Your task to perform on an android device: Open the calendar and show me this week's events? Image 0: 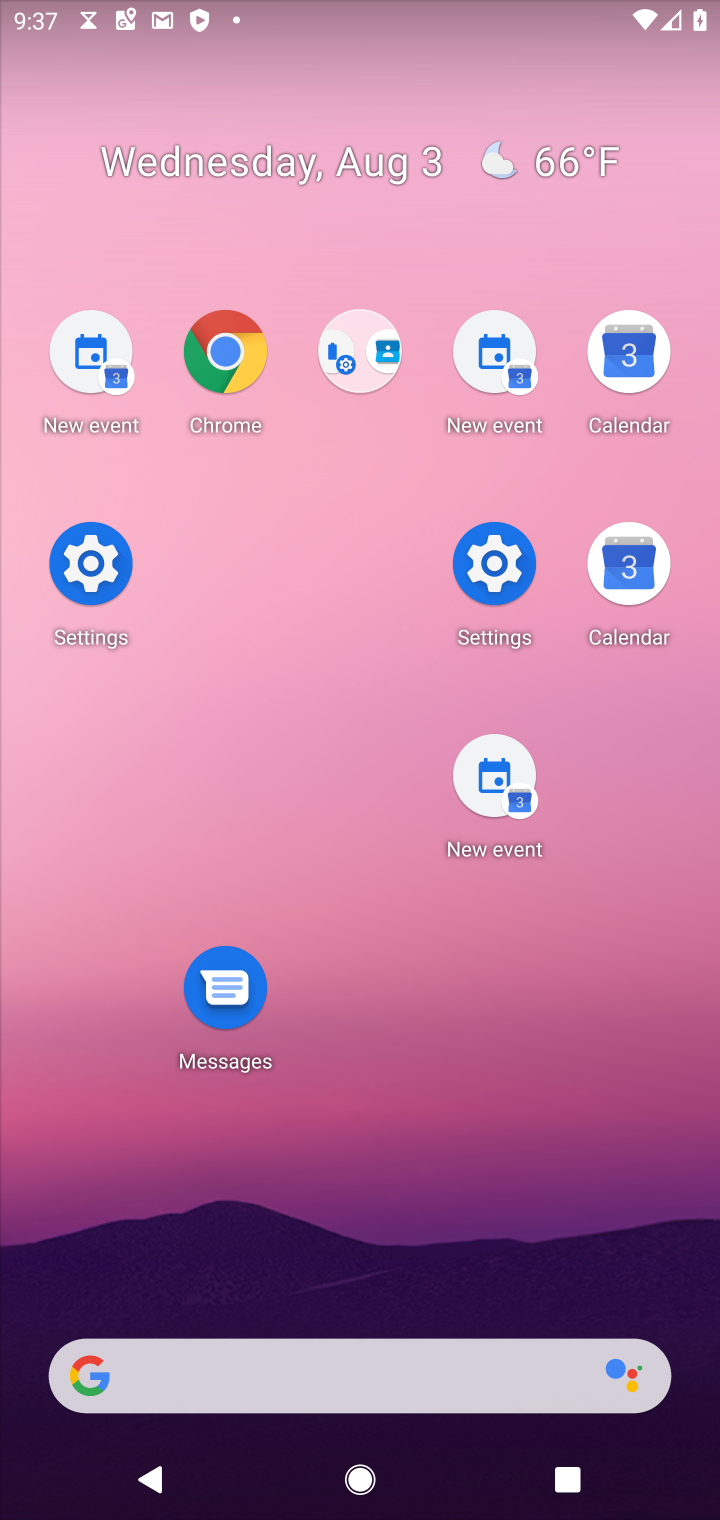
Step 0: drag from (454, 1379) to (460, 485)
Your task to perform on an android device: Open the calendar and show me this week's events? Image 1: 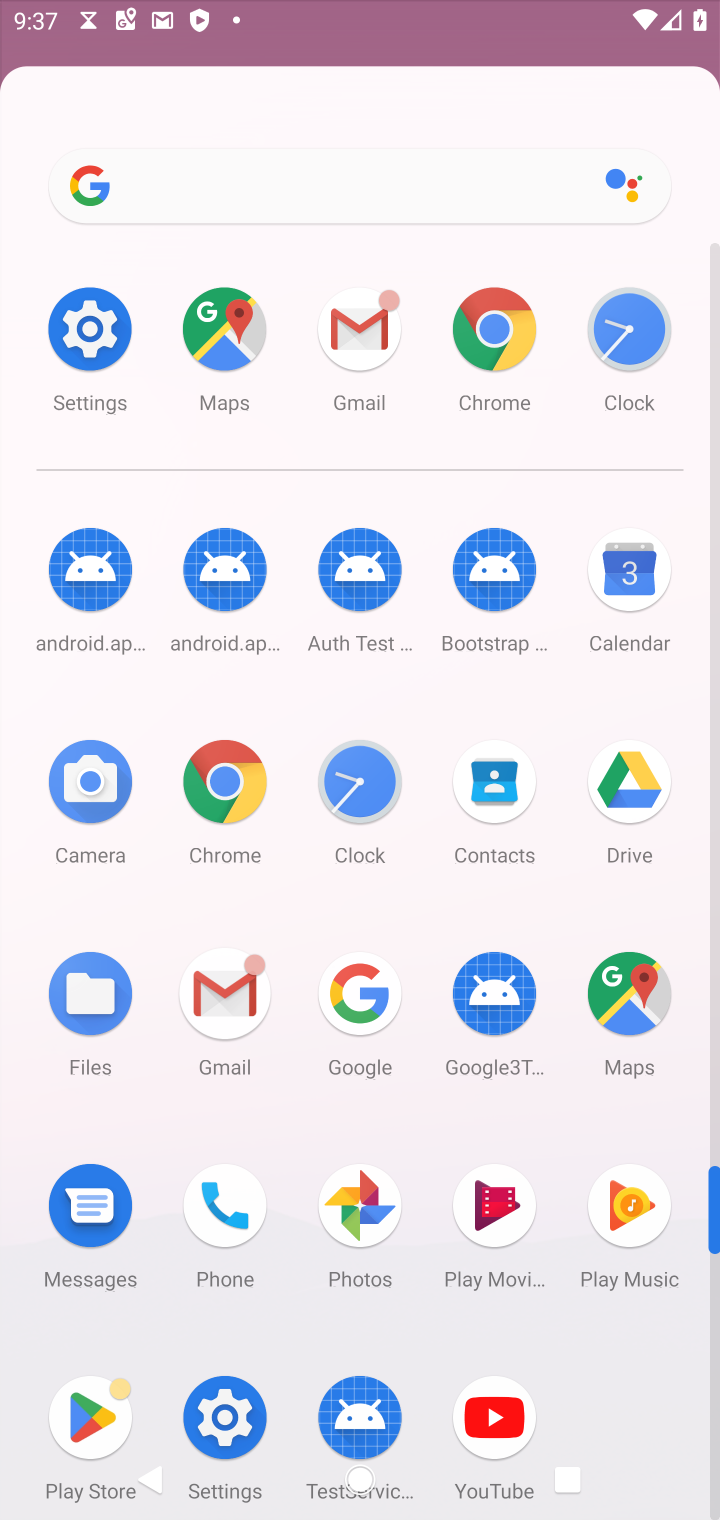
Step 1: drag from (437, 1038) to (434, 392)
Your task to perform on an android device: Open the calendar and show me this week's events? Image 2: 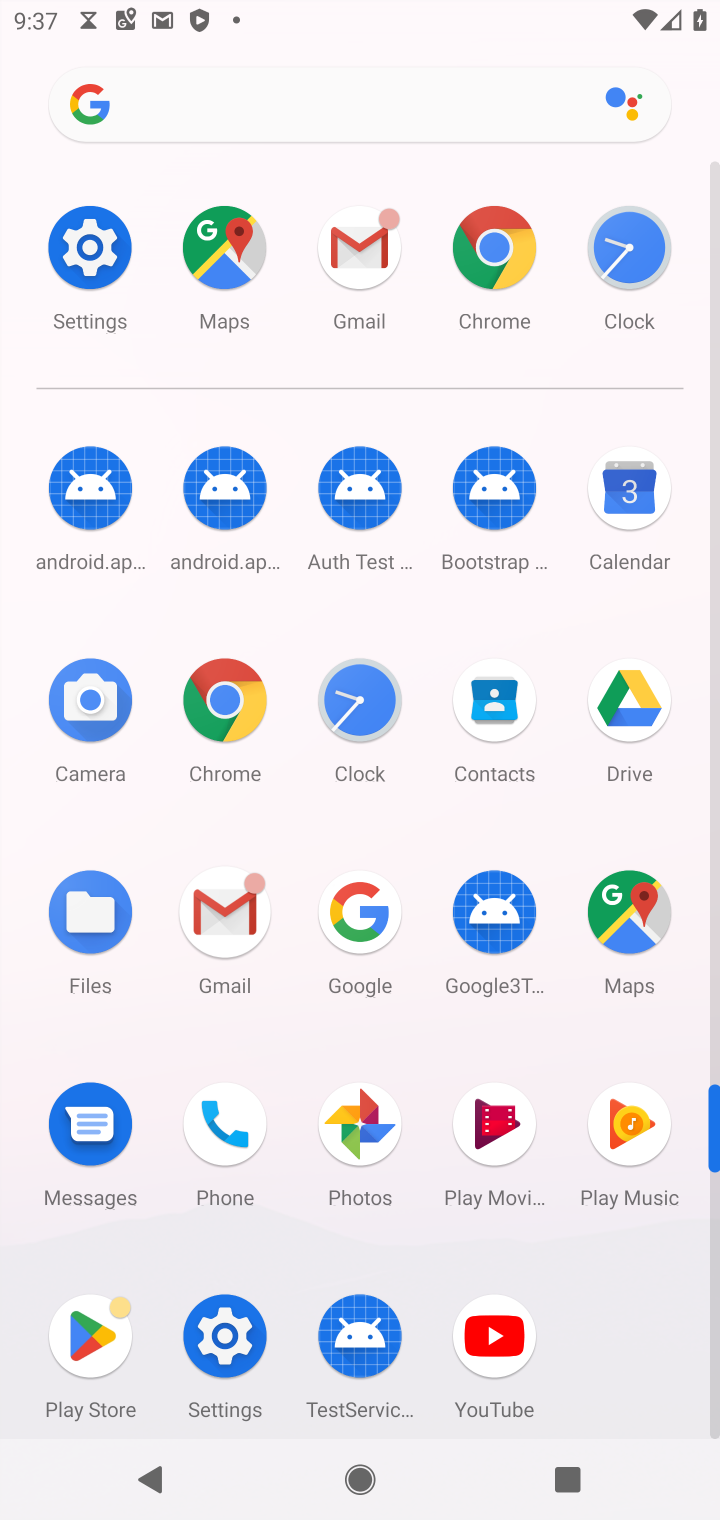
Step 2: click (632, 507)
Your task to perform on an android device: Open the calendar and show me this week's events? Image 3: 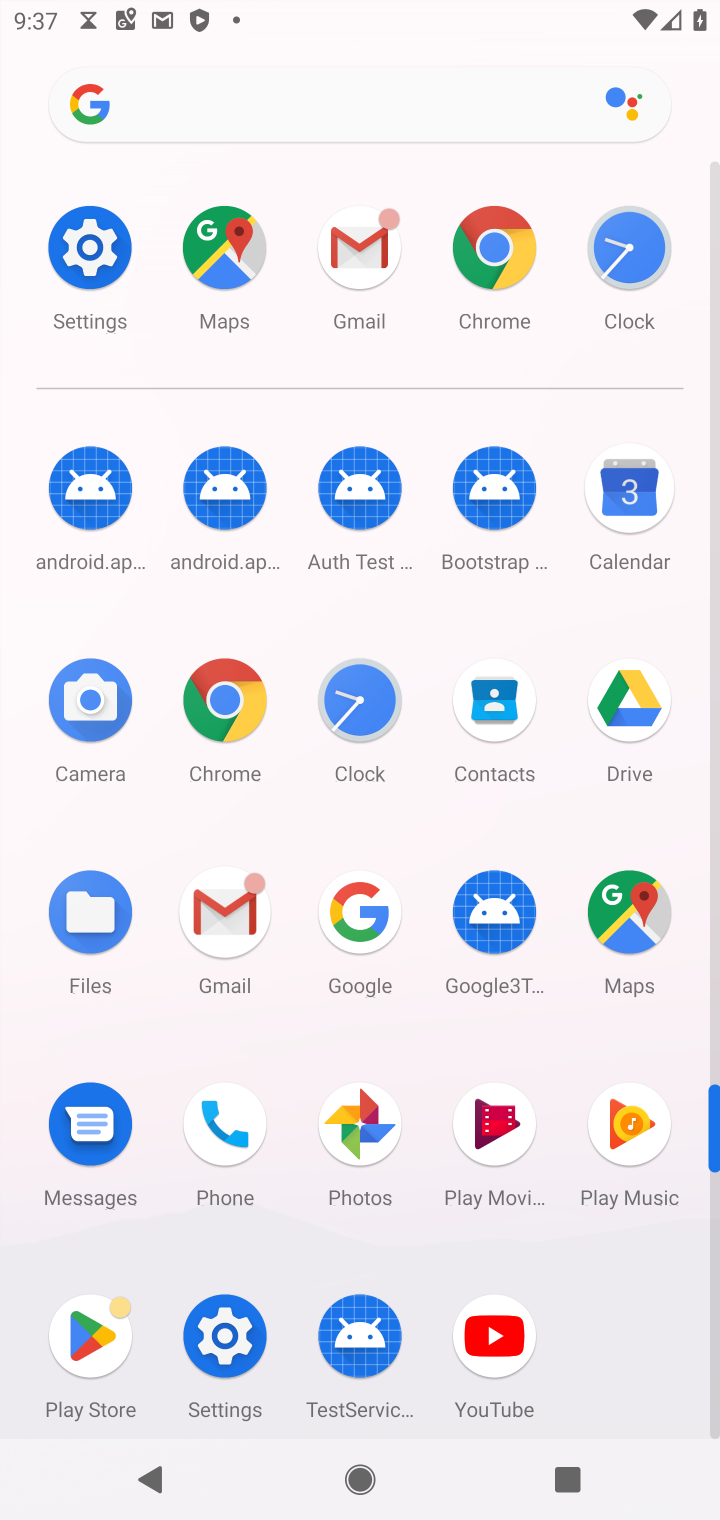
Step 3: click (644, 501)
Your task to perform on an android device: Open the calendar and show me this week's events? Image 4: 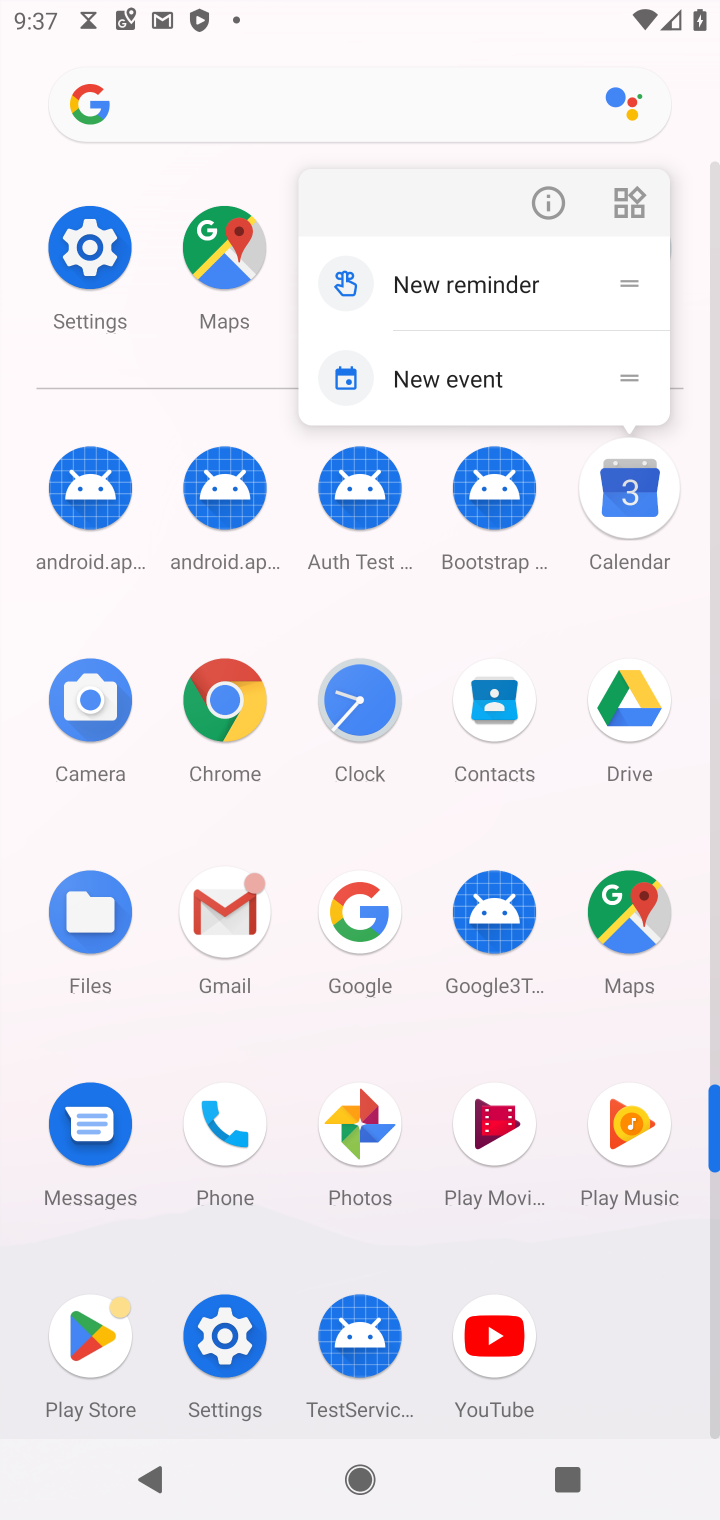
Step 4: click (643, 505)
Your task to perform on an android device: Open the calendar and show me this week's events? Image 5: 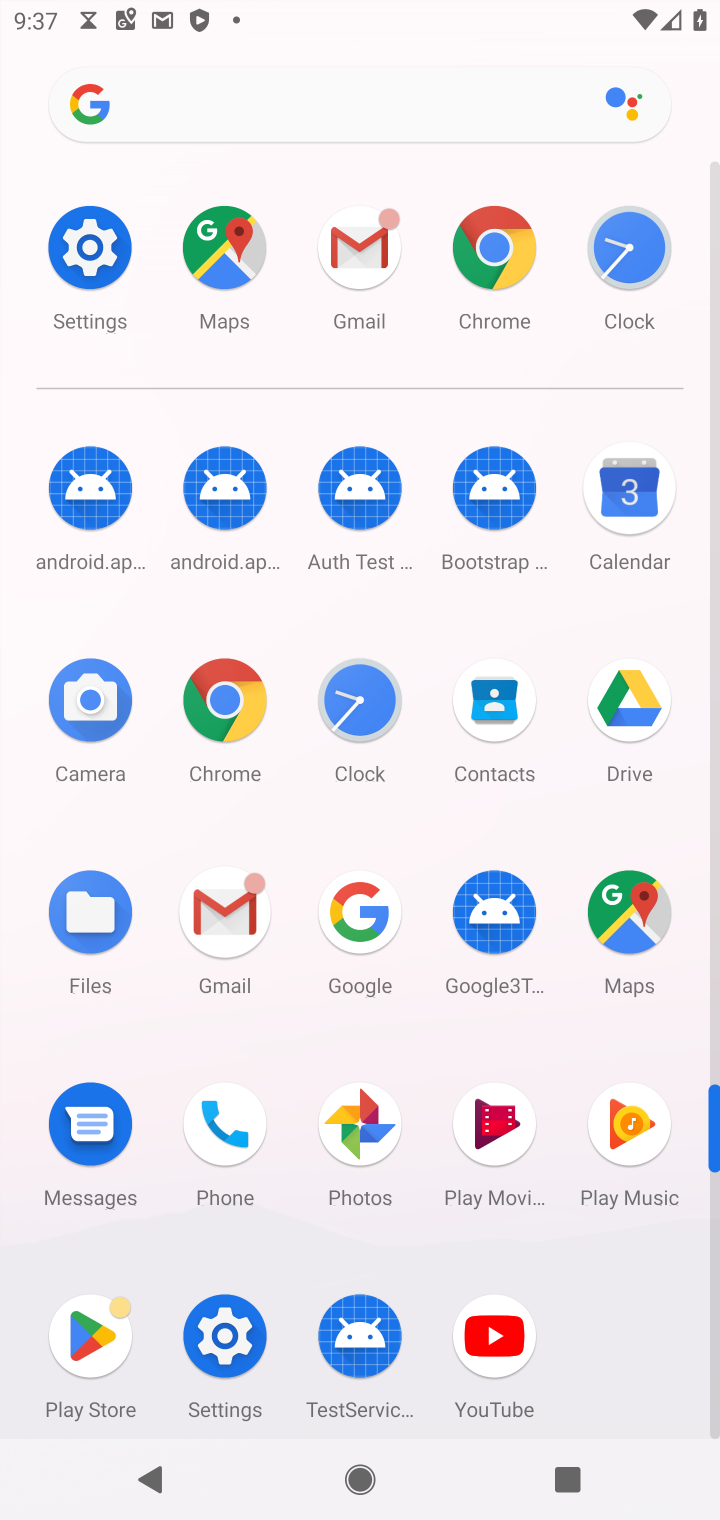
Step 5: click (627, 503)
Your task to perform on an android device: Open the calendar and show me this week's events? Image 6: 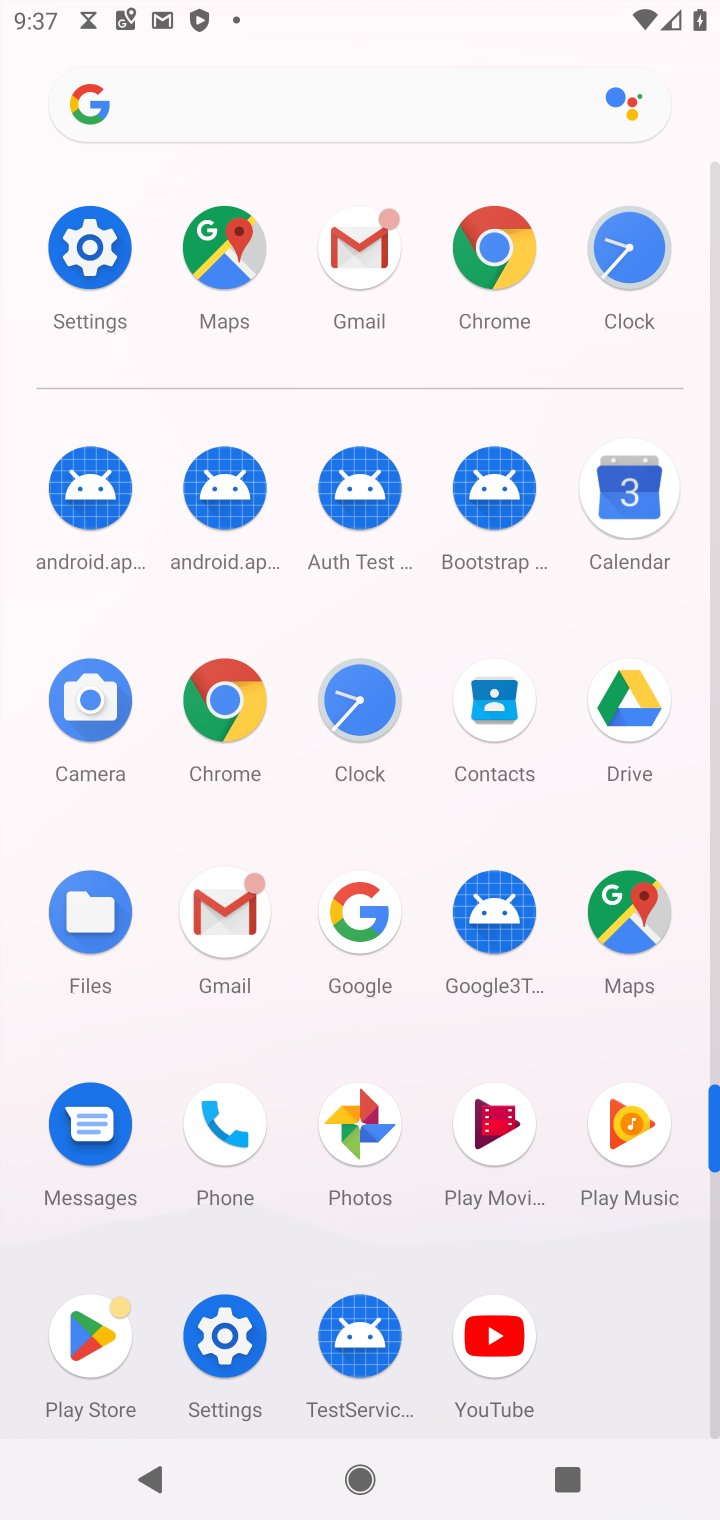
Step 6: click (472, 382)
Your task to perform on an android device: Open the calendar and show me this week's events? Image 7: 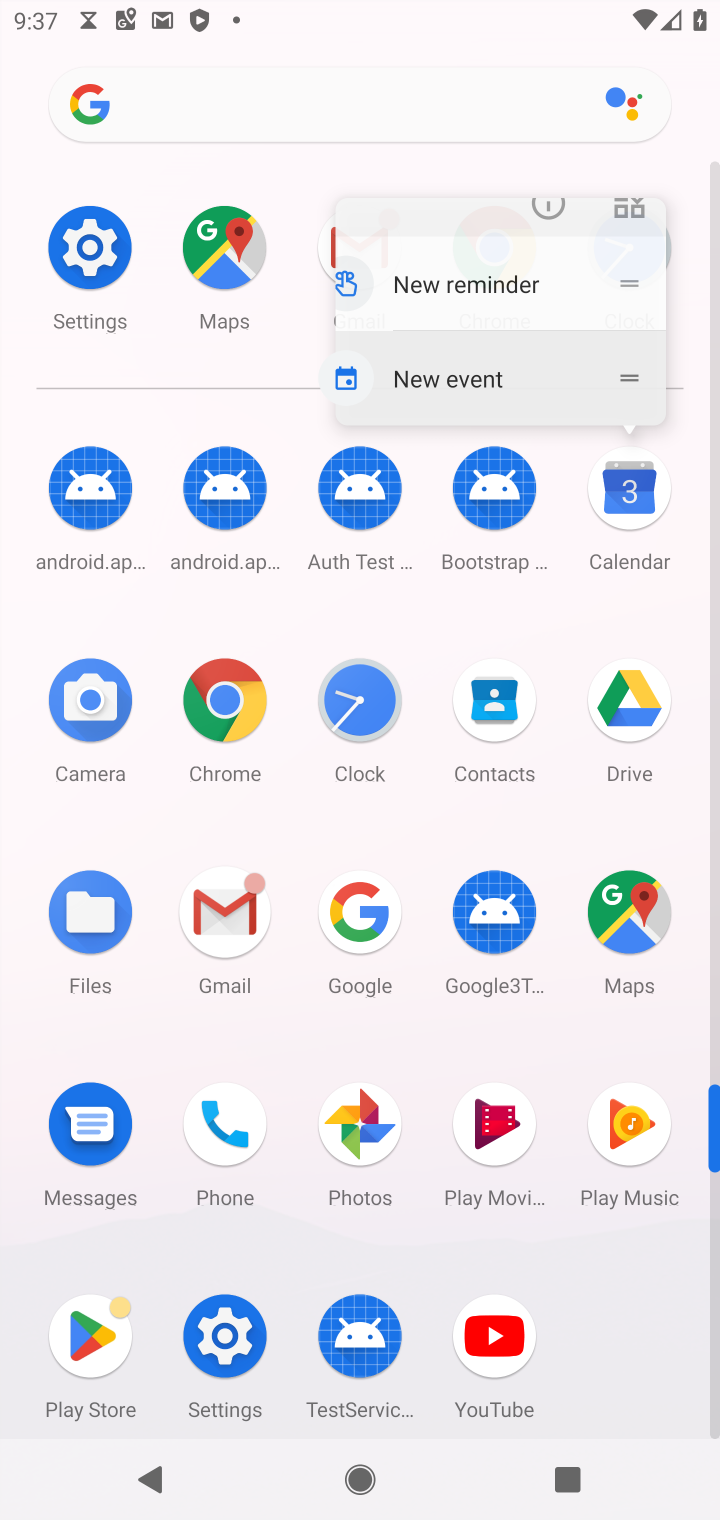
Step 7: click (472, 382)
Your task to perform on an android device: Open the calendar and show me this week's events? Image 8: 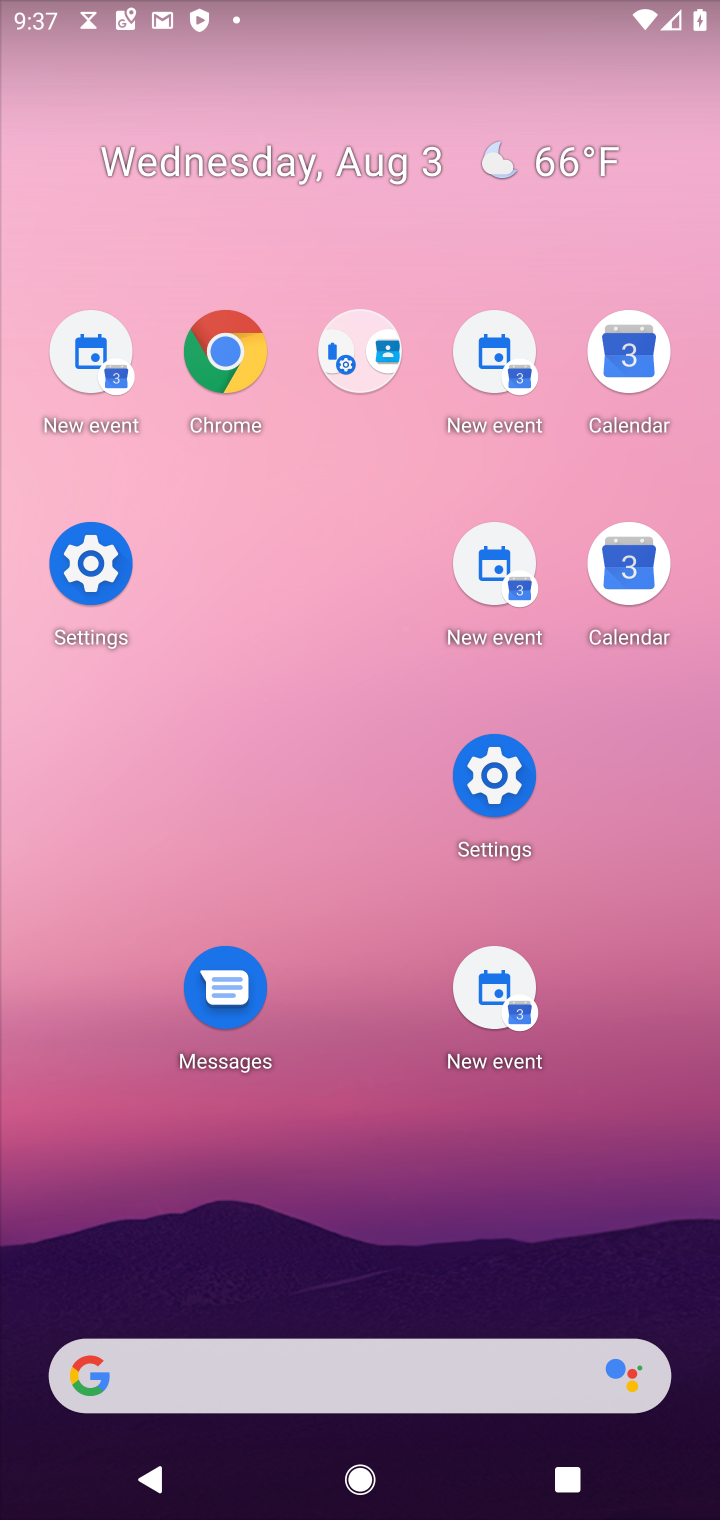
Step 8: drag from (440, 1191) to (113, 335)
Your task to perform on an android device: Open the calendar and show me this week's events? Image 9: 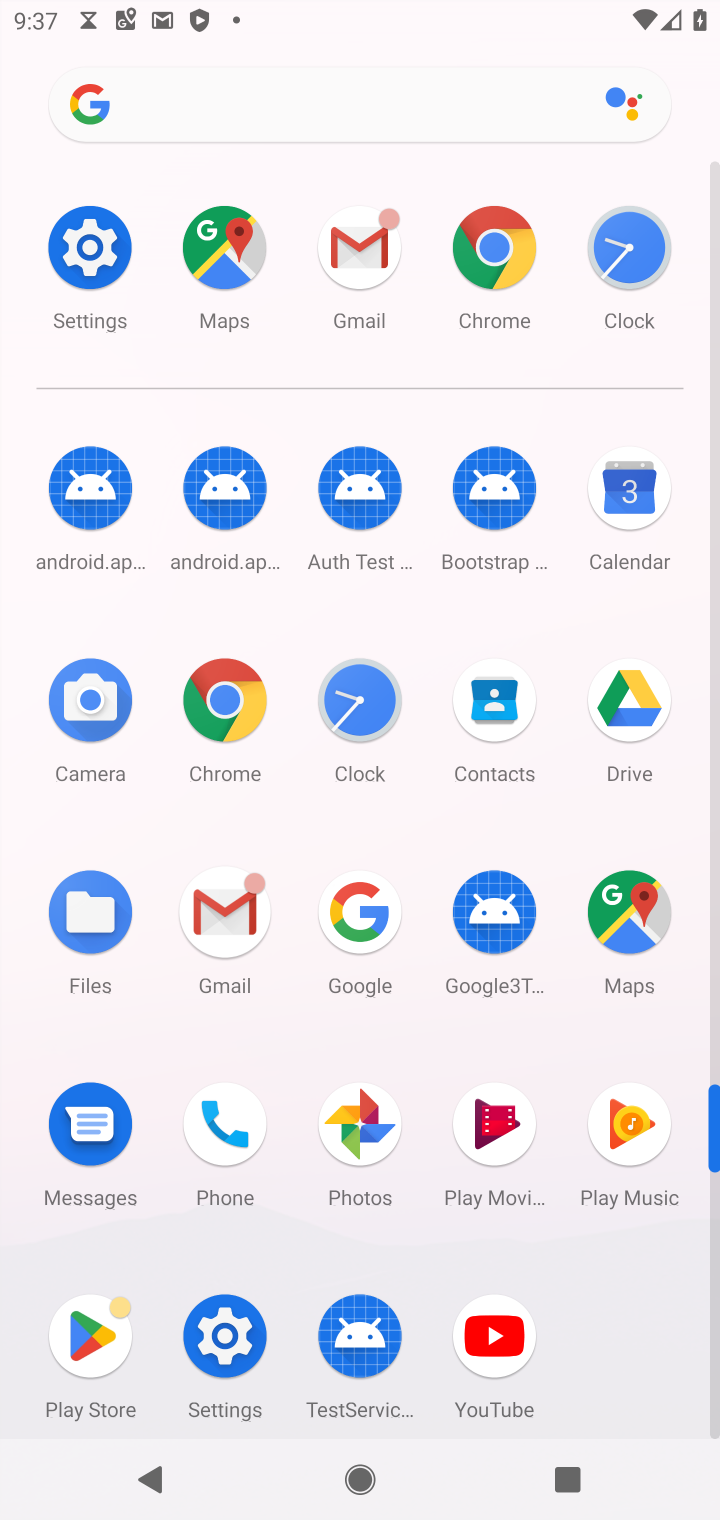
Step 9: click (638, 495)
Your task to perform on an android device: Open the calendar and show me this week's events? Image 10: 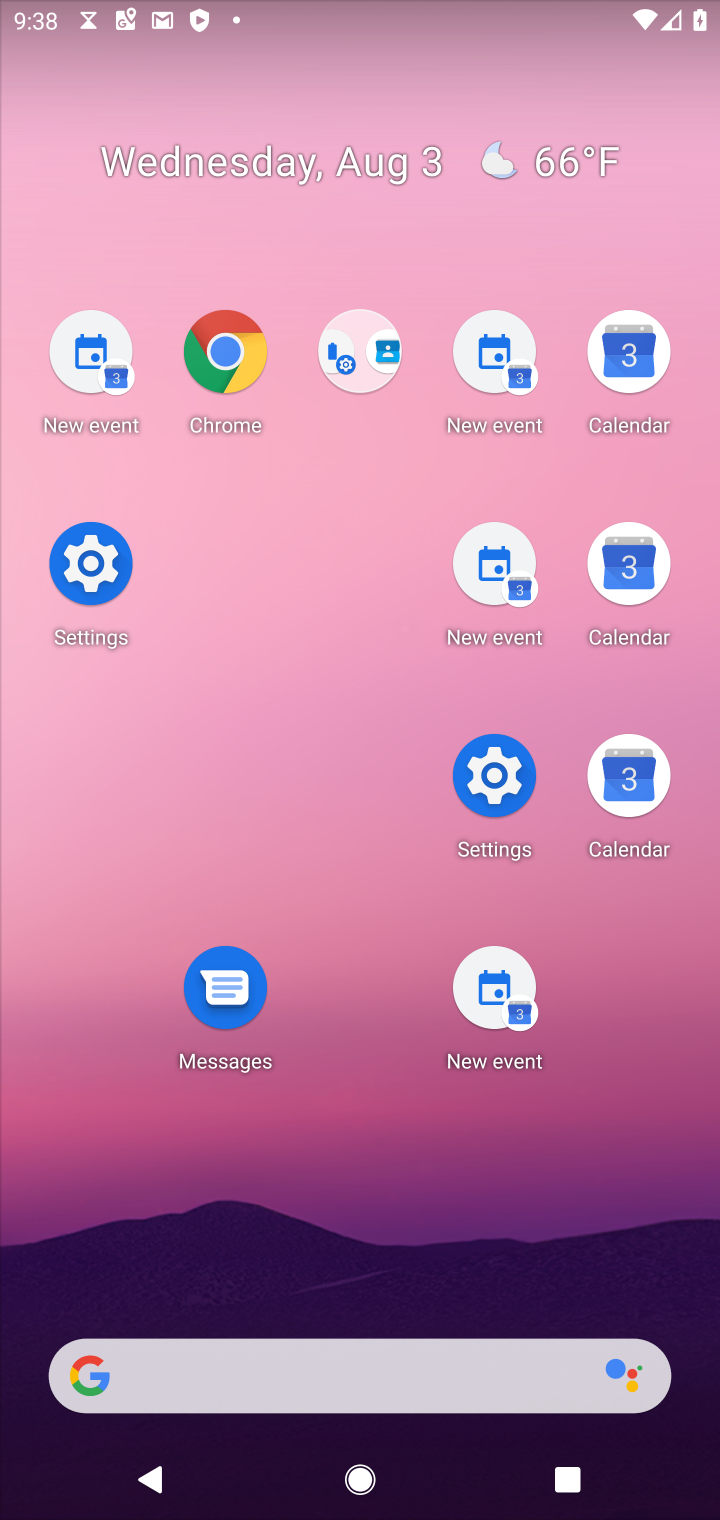
Step 10: click (623, 583)
Your task to perform on an android device: Open the calendar and show me this week's events? Image 11: 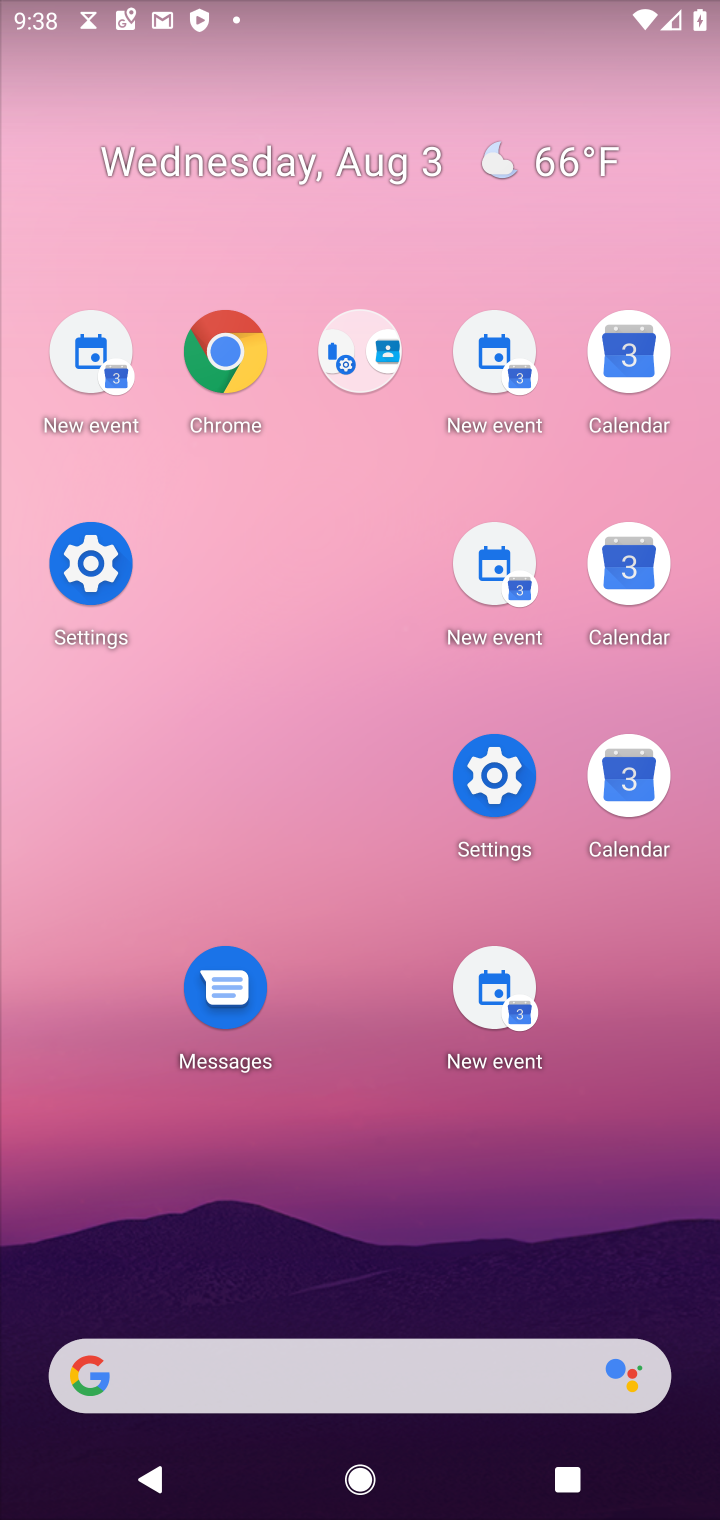
Step 11: click (621, 585)
Your task to perform on an android device: Open the calendar and show me this week's events? Image 12: 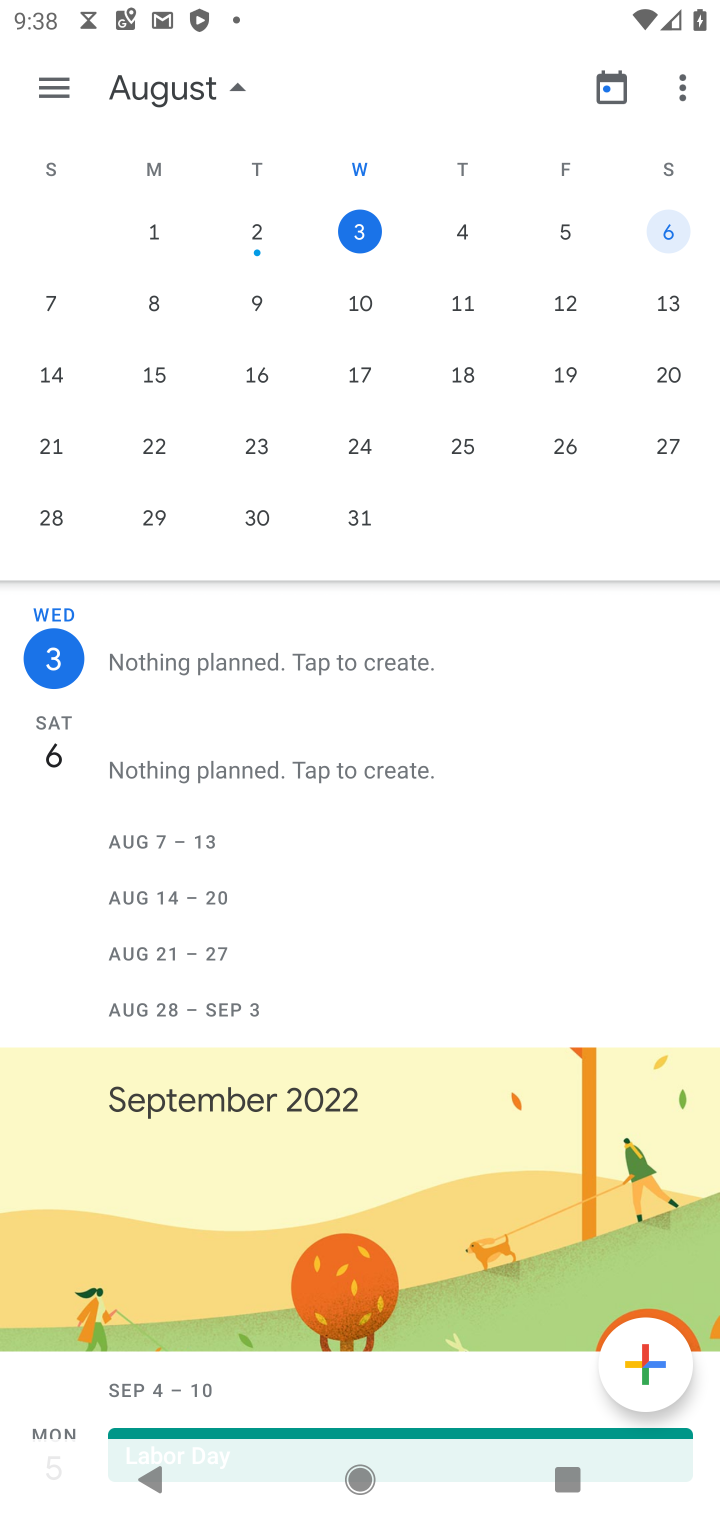
Step 12: click (626, 544)
Your task to perform on an android device: Open the calendar and show me this week's events? Image 13: 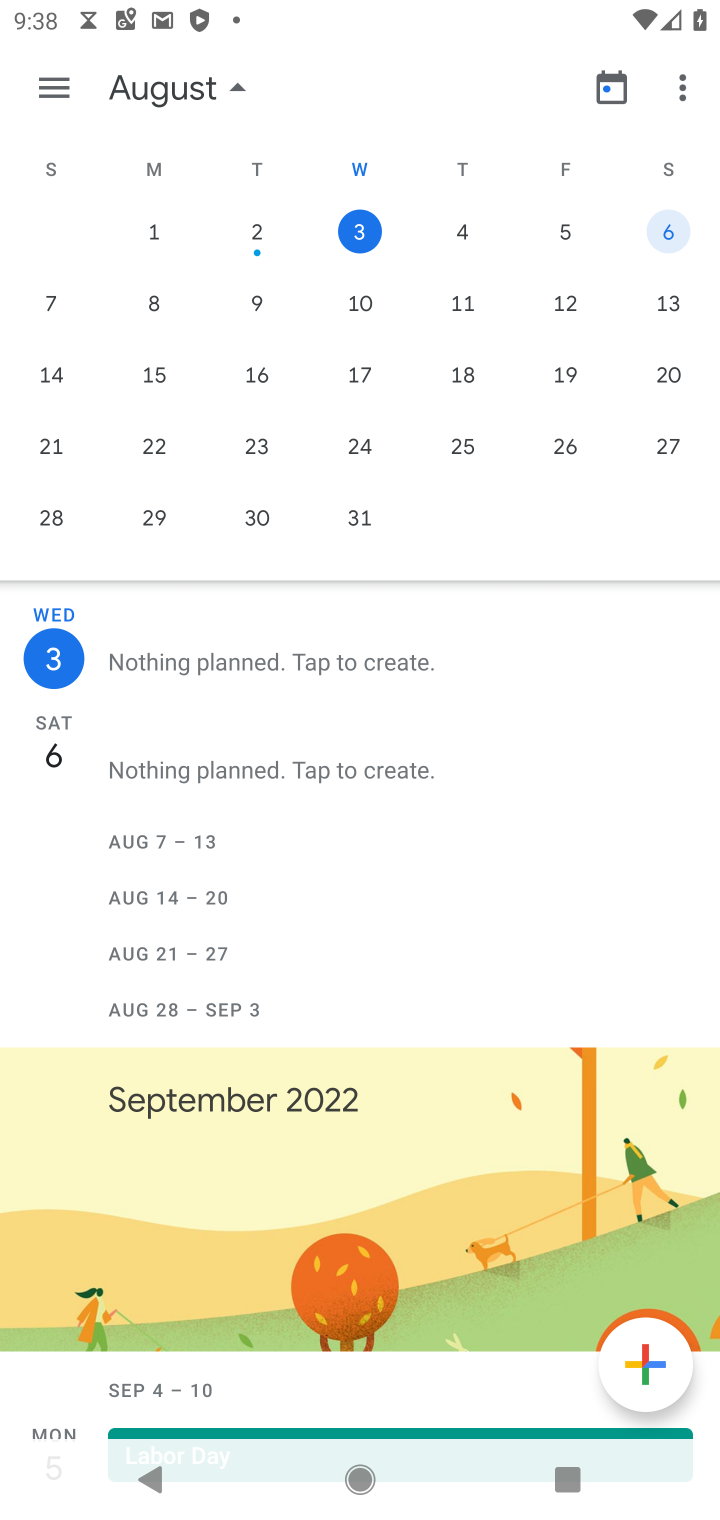
Step 13: click (653, 234)
Your task to perform on an android device: Open the calendar and show me this week's events? Image 14: 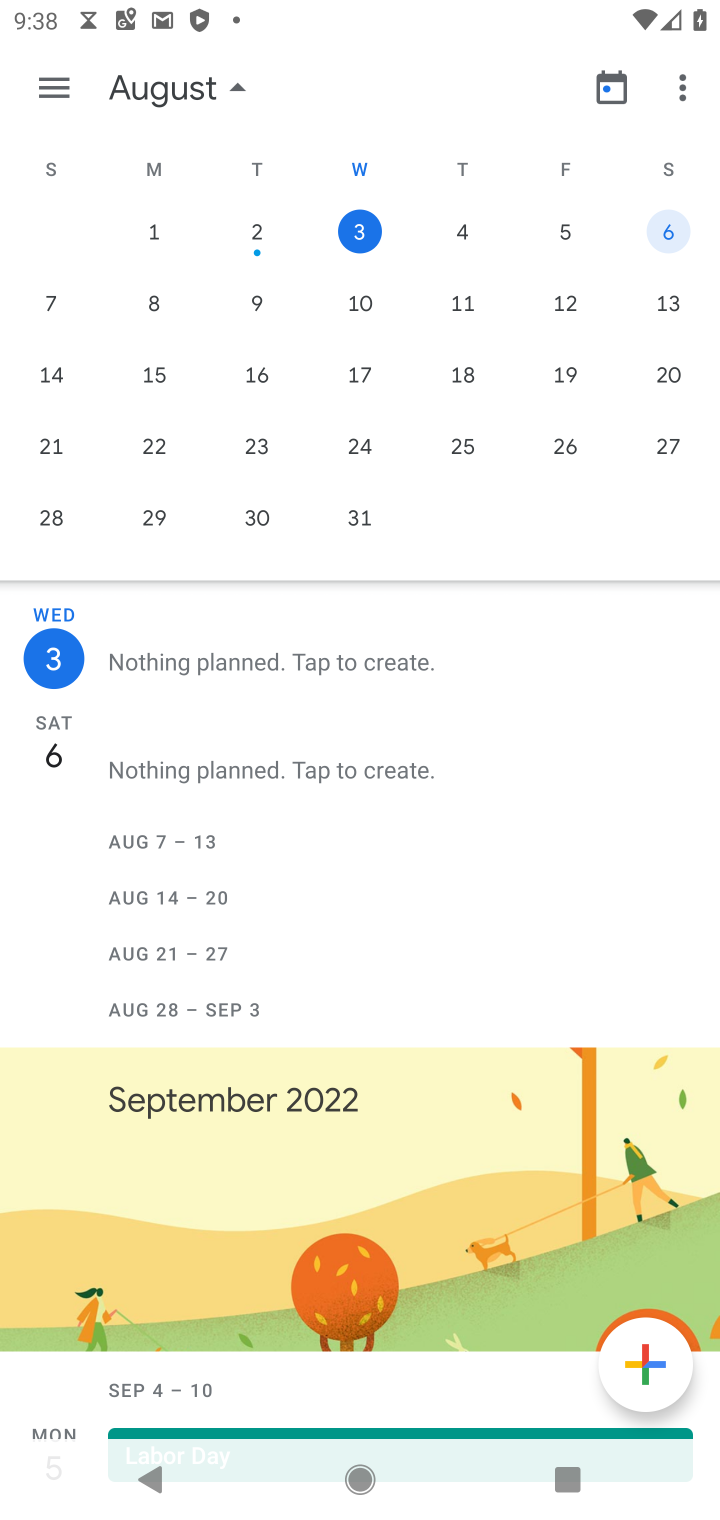
Step 14: click (653, 234)
Your task to perform on an android device: Open the calendar and show me this week's events? Image 15: 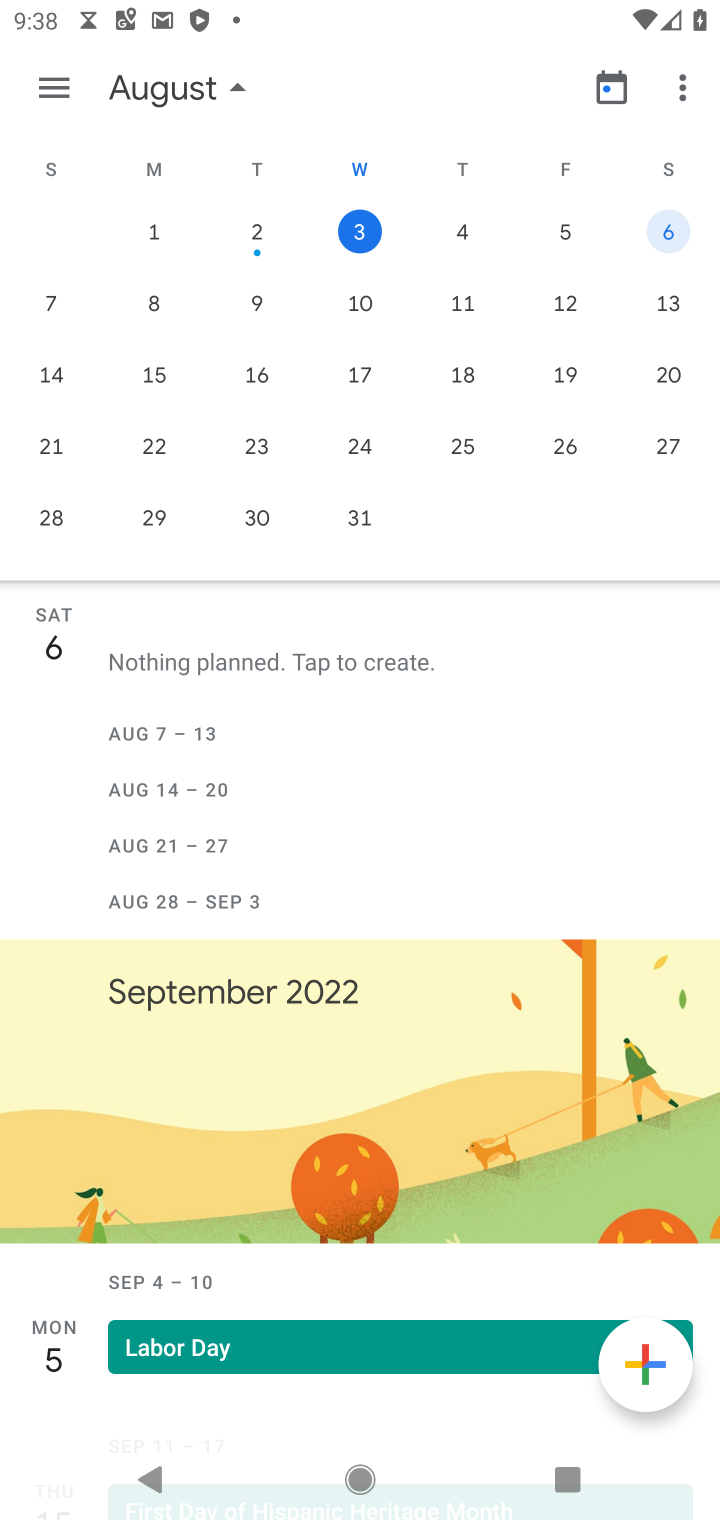
Step 15: click (653, 234)
Your task to perform on an android device: Open the calendar and show me this week's events? Image 16: 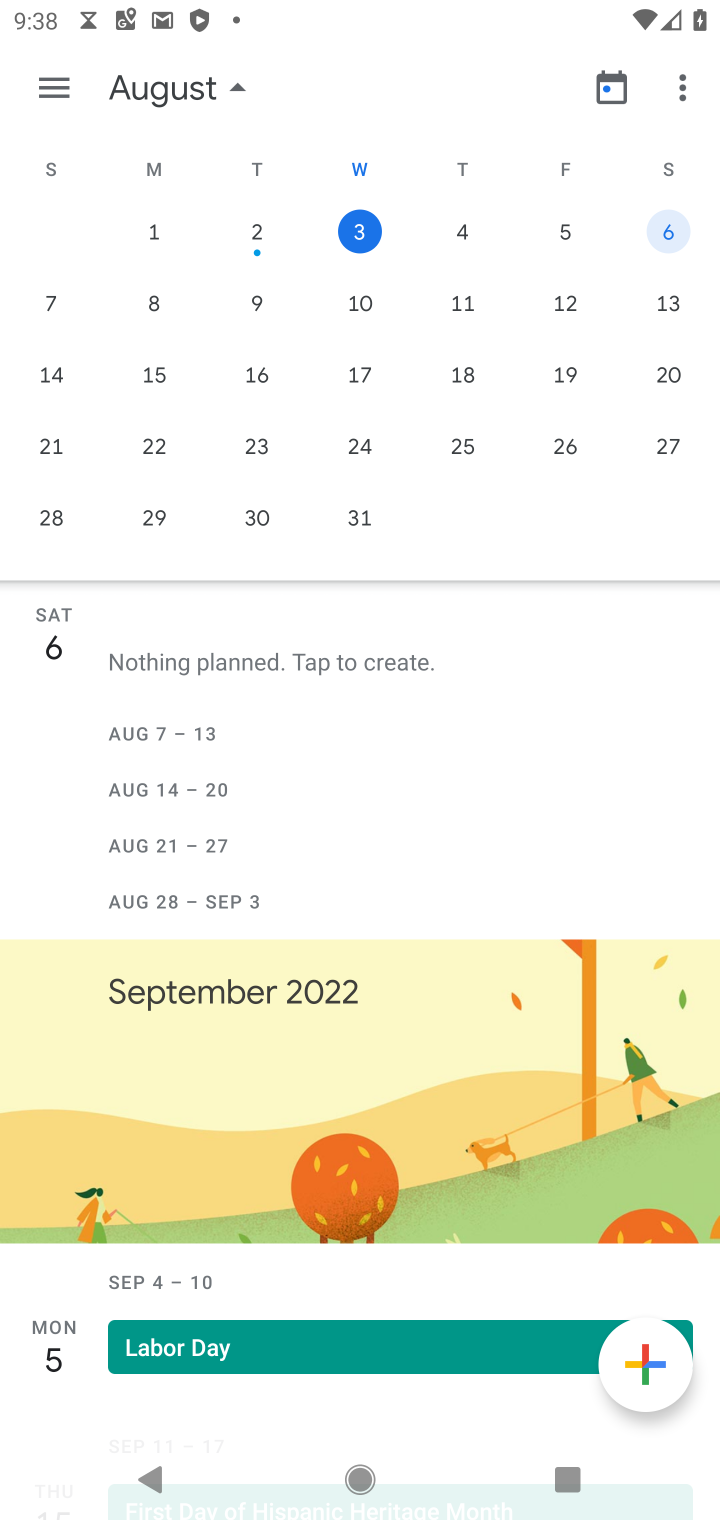
Step 16: task complete